Your task to perform on an android device: stop showing notifications on the lock screen Image 0: 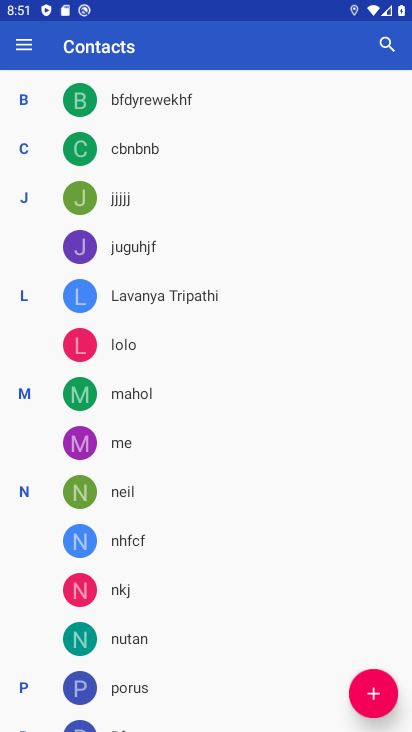
Step 0: press home button
Your task to perform on an android device: stop showing notifications on the lock screen Image 1: 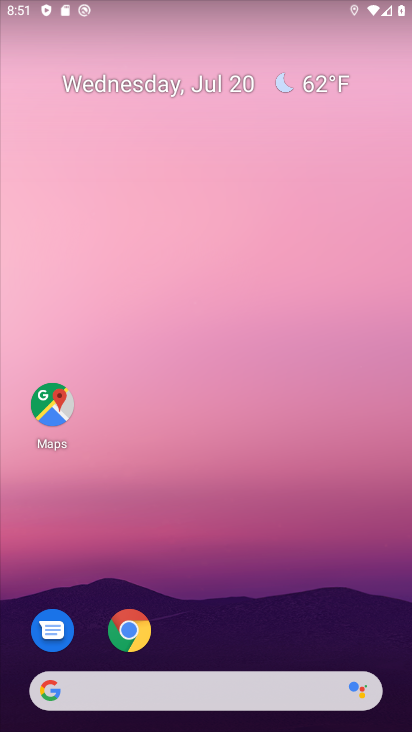
Step 1: drag from (180, 682) to (176, 178)
Your task to perform on an android device: stop showing notifications on the lock screen Image 2: 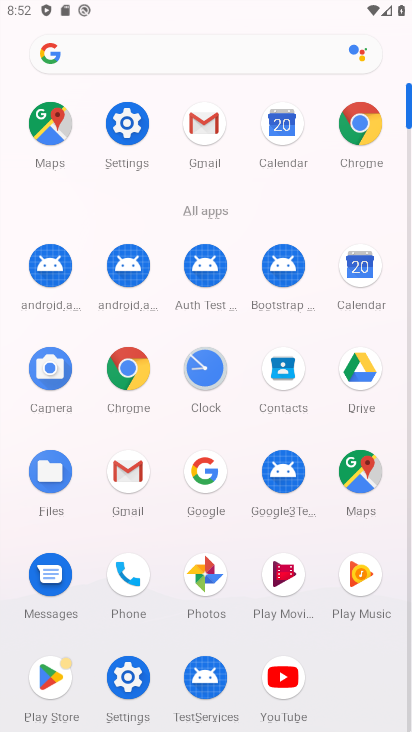
Step 2: click (113, 682)
Your task to perform on an android device: stop showing notifications on the lock screen Image 3: 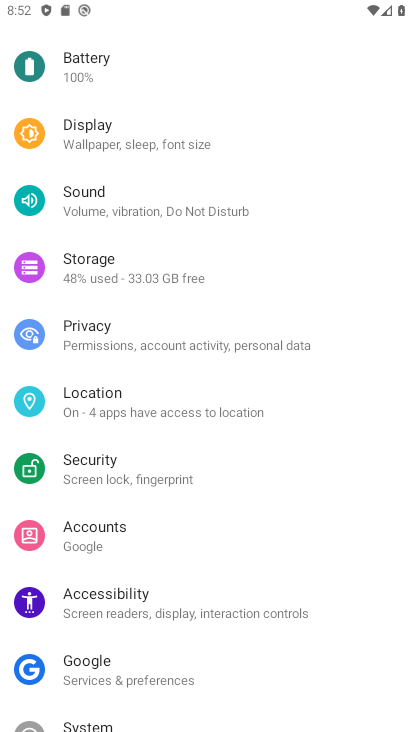
Step 3: drag from (153, 229) to (128, 648)
Your task to perform on an android device: stop showing notifications on the lock screen Image 4: 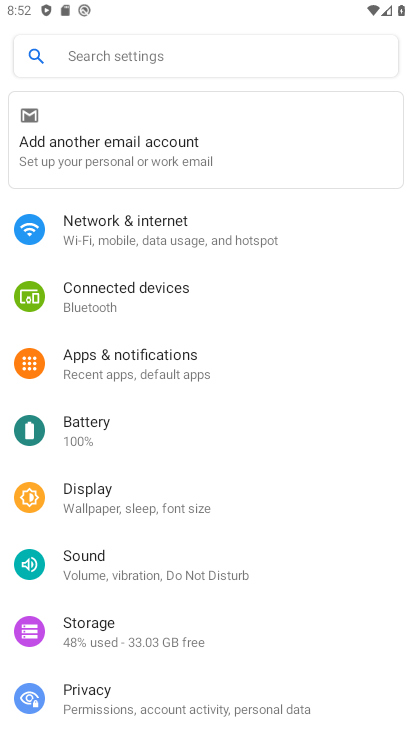
Step 4: click (164, 362)
Your task to perform on an android device: stop showing notifications on the lock screen Image 5: 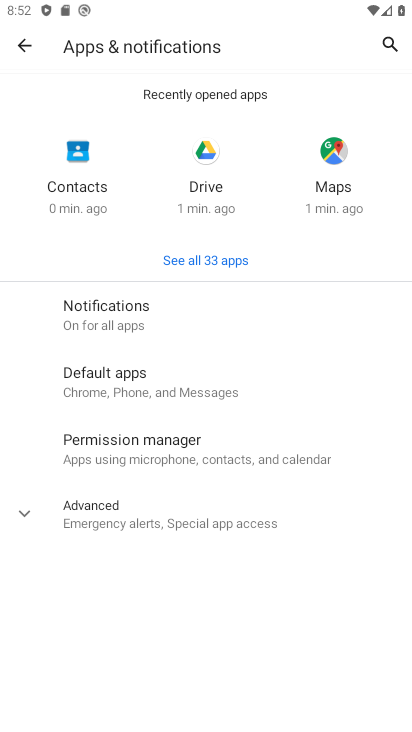
Step 5: click (130, 326)
Your task to perform on an android device: stop showing notifications on the lock screen Image 6: 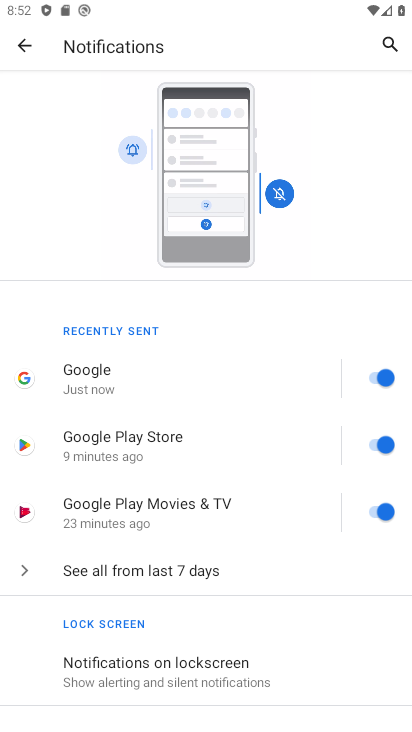
Step 6: click (190, 670)
Your task to perform on an android device: stop showing notifications on the lock screen Image 7: 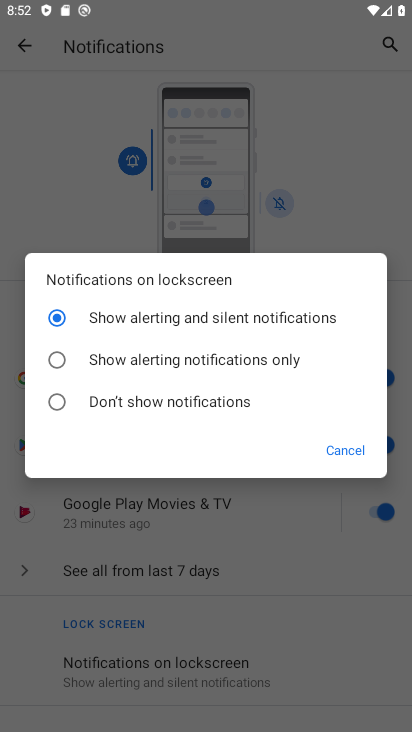
Step 7: click (118, 399)
Your task to perform on an android device: stop showing notifications on the lock screen Image 8: 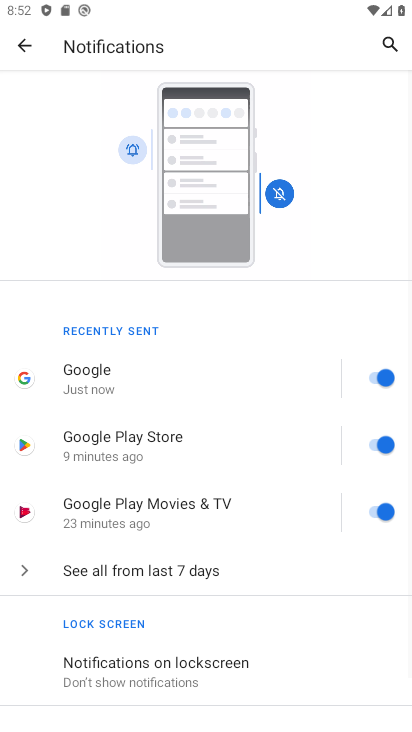
Step 8: task complete